Your task to perform on an android device: When is my next appointment? Image 0: 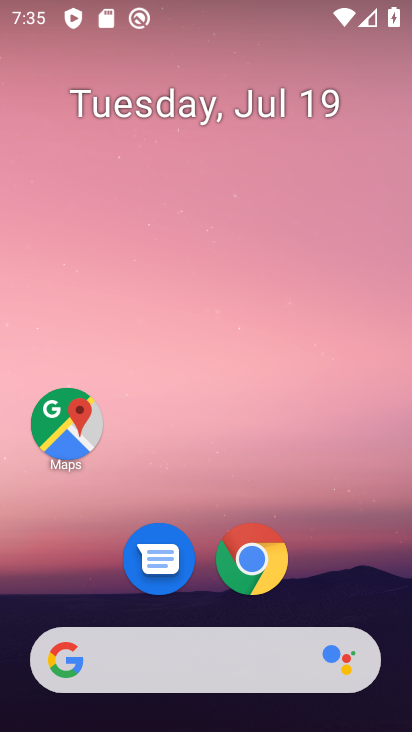
Step 0: drag from (72, 596) to (239, 1)
Your task to perform on an android device: When is my next appointment? Image 1: 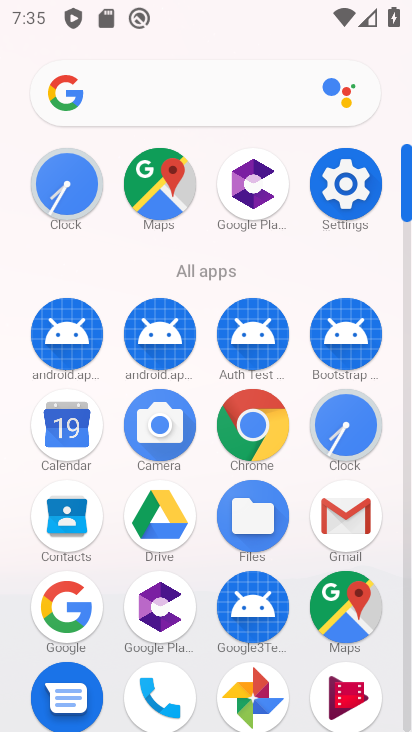
Step 1: click (64, 440)
Your task to perform on an android device: When is my next appointment? Image 2: 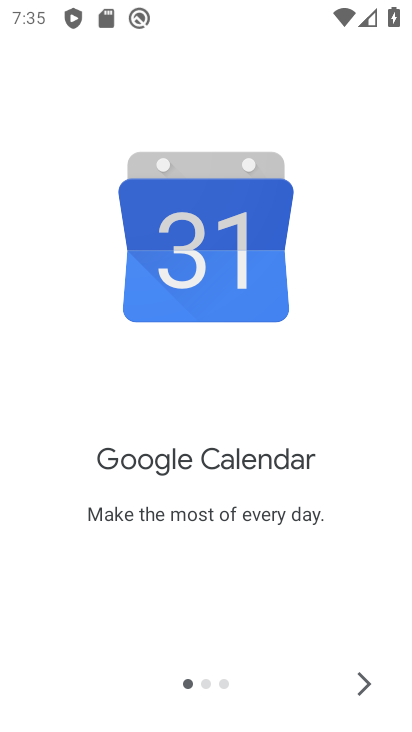
Step 2: click (367, 678)
Your task to perform on an android device: When is my next appointment? Image 3: 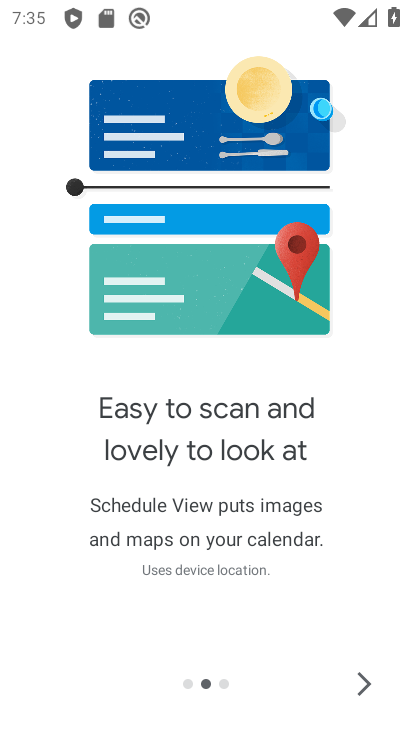
Step 3: click (368, 679)
Your task to perform on an android device: When is my next appointment? Image 4: 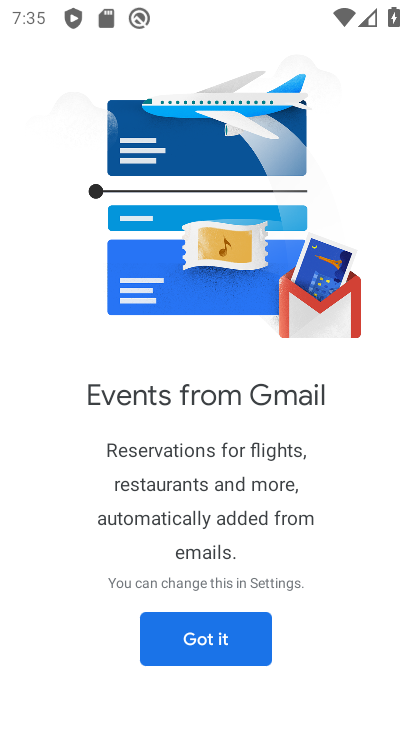
Step 4: click (233, 631)
Your task to perform on an android device: When is my next appointment? Image 5: 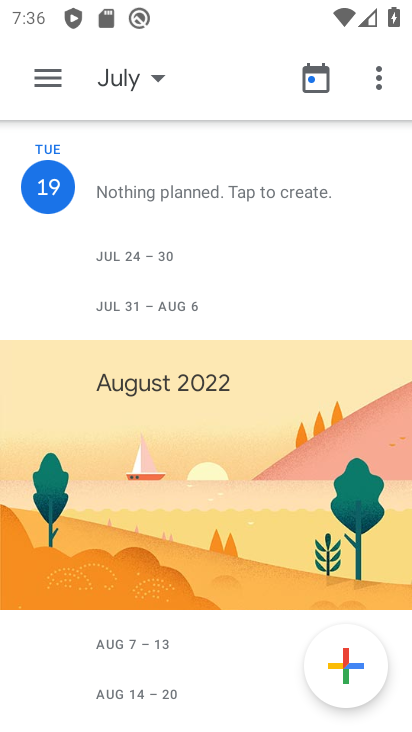
Step 5: task complete